Your task to perform on an android device: add a contact in the contacts app Image 0: 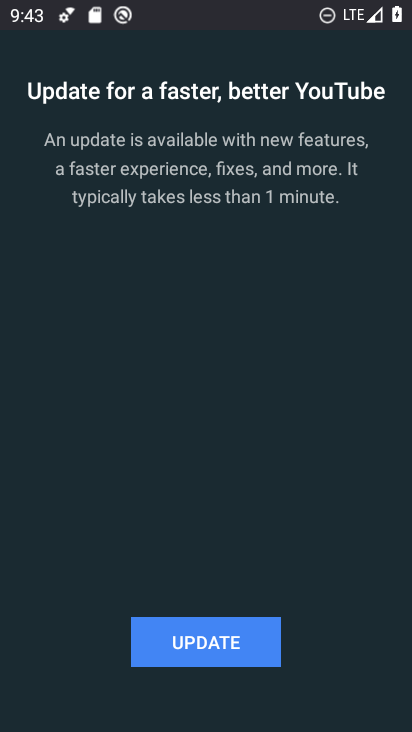
Step 0: press home button
Your task to perform on an android device: add a contact in the contacts app Image 1: 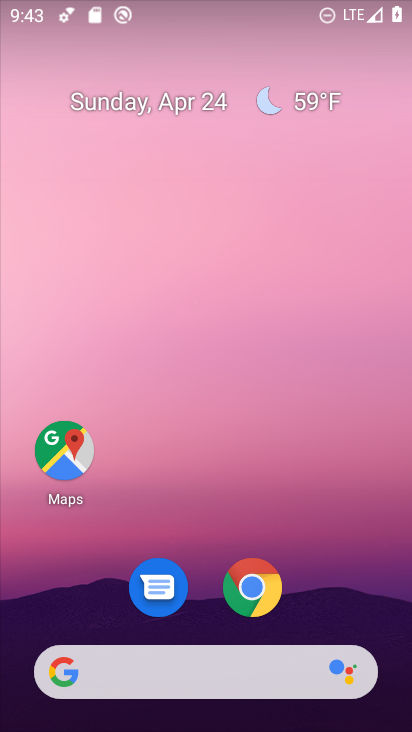
Step 1: drag from (211, 485) to (262, 1)
Your task to perform on an android device: add a contact in the contacts app Image 2: 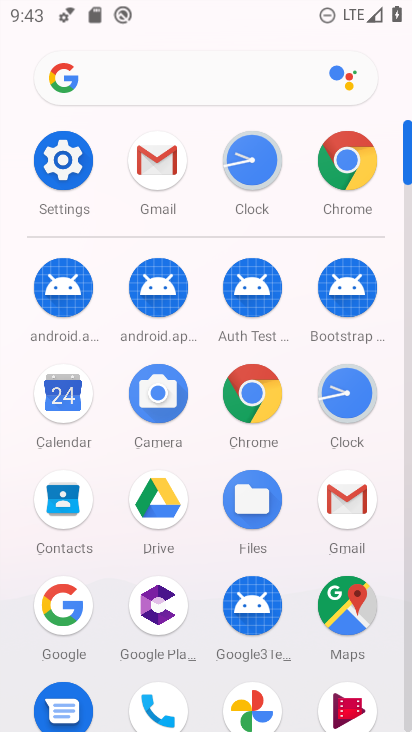
Step 2: click (66, 505)
Your task to perform on an android device: add a contact in the contacts app Image 3: 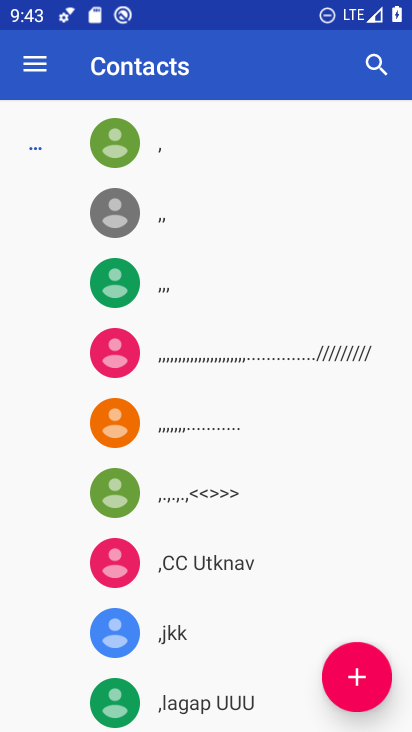
Step 3: click (355, 675)
Your task to perform on an android device: add a contact in the contacts app Image 4: 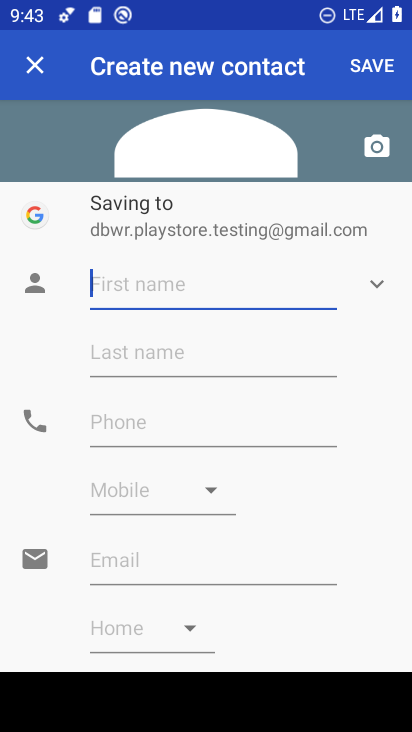
Step 4: click (269, 293)
Your task to perform on an android device: add a contact in the contacts app Image 5: 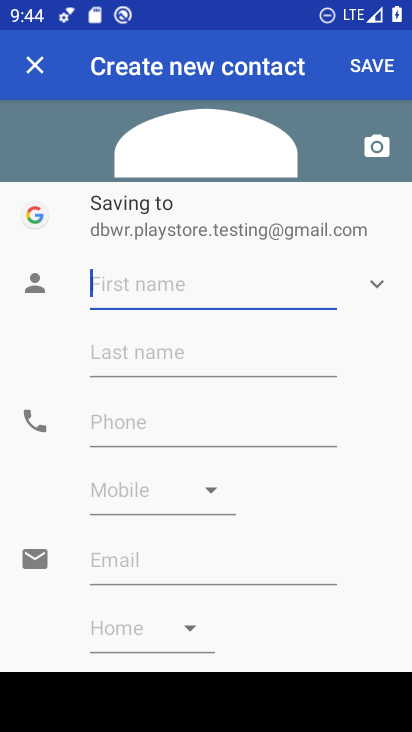
Step 5: type "Chandrapratap"
Your task to perform on an android device: add a contact in the contacts app Image 6: 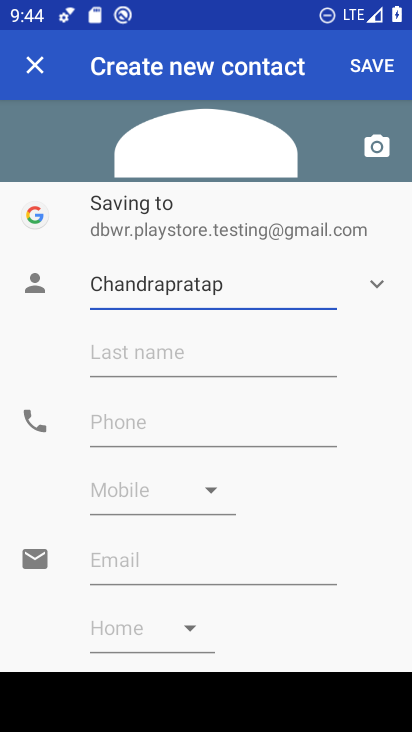
Step 6: click (215, 354)
Your task to perform on an android device: add a contact in the contacts app Image 7: 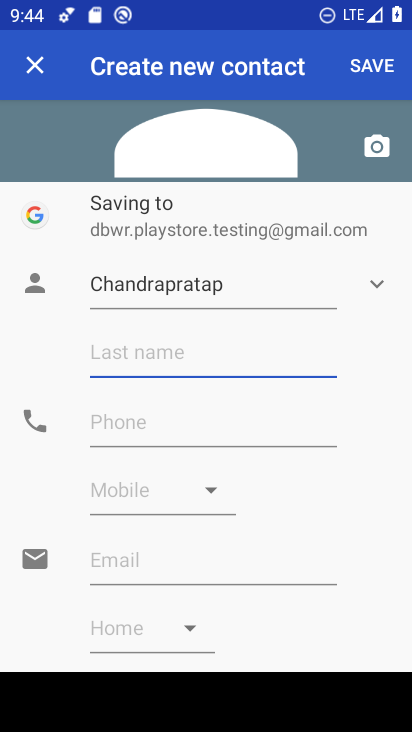
Step 7: type "Tewatiya"
Your task to perform on an android device: add a contact in the contacts app Image 8: 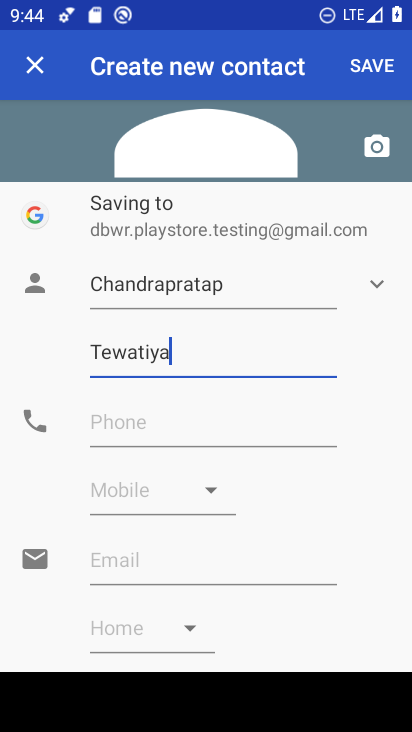
Step 8: click (162, 426)
Your task to perform on an android device: add a contact in the contacts app Image 9: 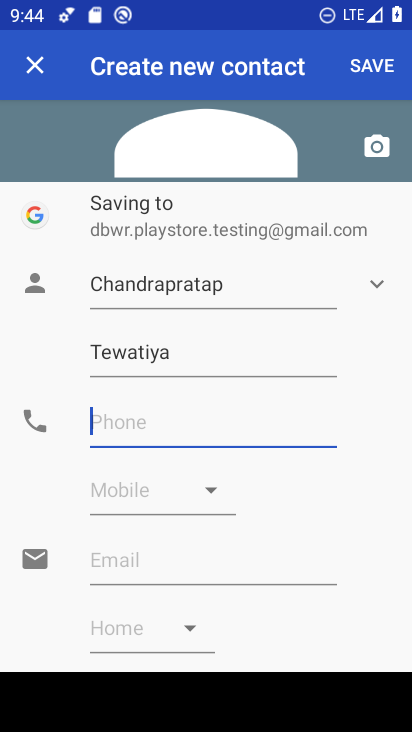
Step 9: type "0992233445566"
Your task to perform on an android device: add a contact in the contacts app Image 10: 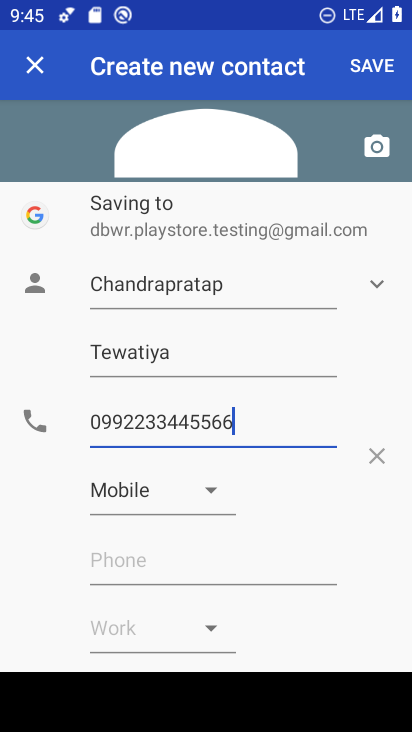
Step 10: click (379, 68)
Your task to perform on an android device: add a contact in the contacts app Image 11: 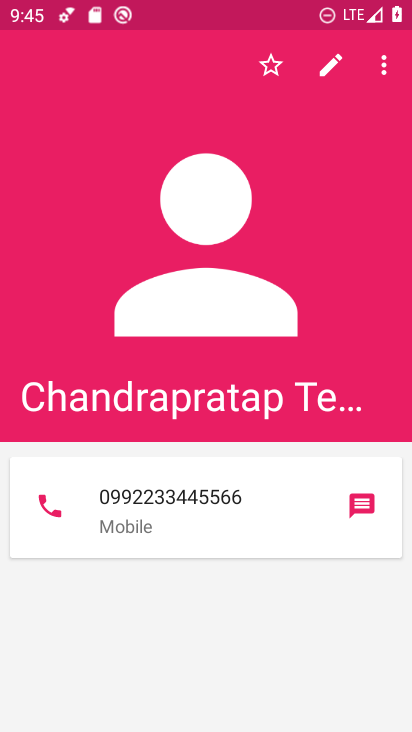
Step 11: task complete